Your task to perform on an android device: Open Android settings Image 0: 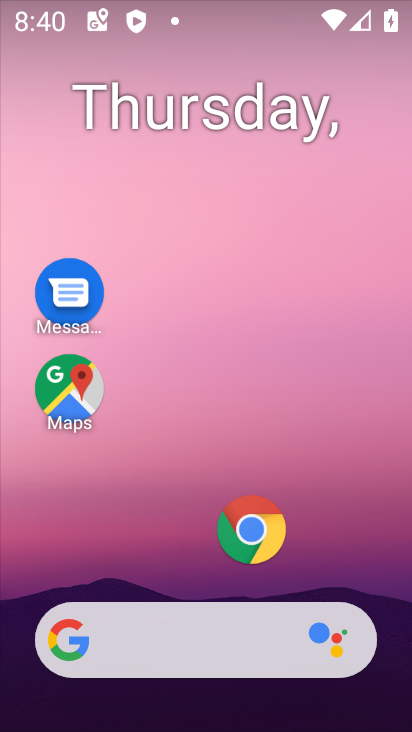
Step 0: drag from (129, 533) to (196, 46)
Your task to perform on an android device: Open Android settings Image 1: 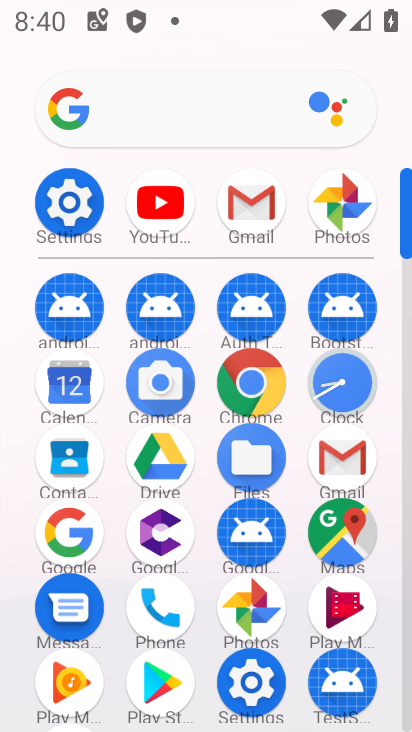
Step 1: click (75, 181)
Your task to perform on an android device: Open Android settings Image 2: 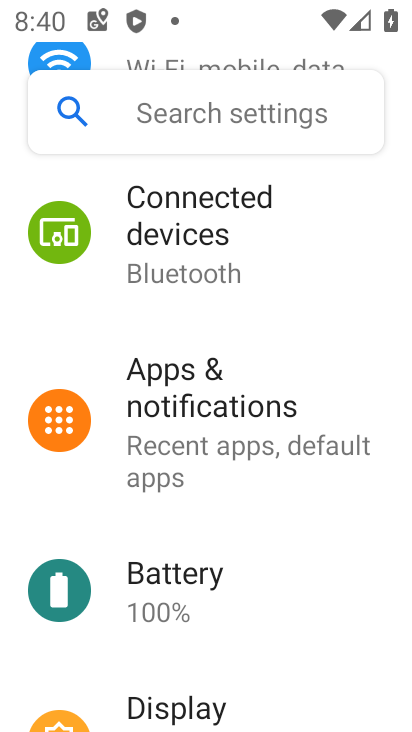
Step 2: task complete